Your task to perform on an android device: read, delete, or share a saved page in the chrome app Image 0: 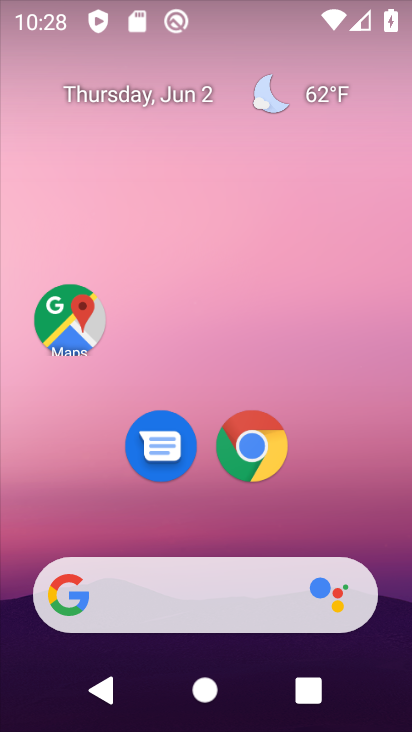
Step 0: click (254, 445)
Your task to perform on an android device: read, delete, or share a saved page in the chrome app Image 1: 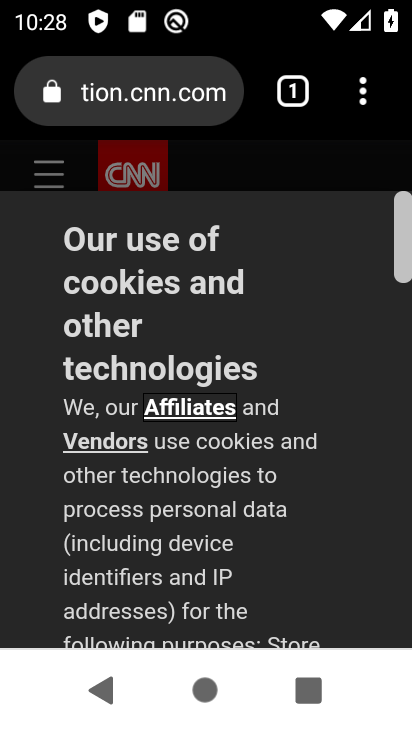
Step 1: task complete